Your task to perform on an android device: turn off wifi Image 0: 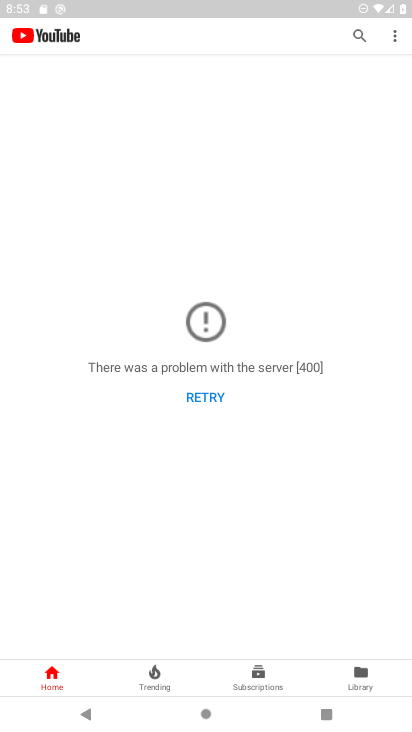
Step 0: press home button
Your task to perform on an android device: turn off wifi Image 1: 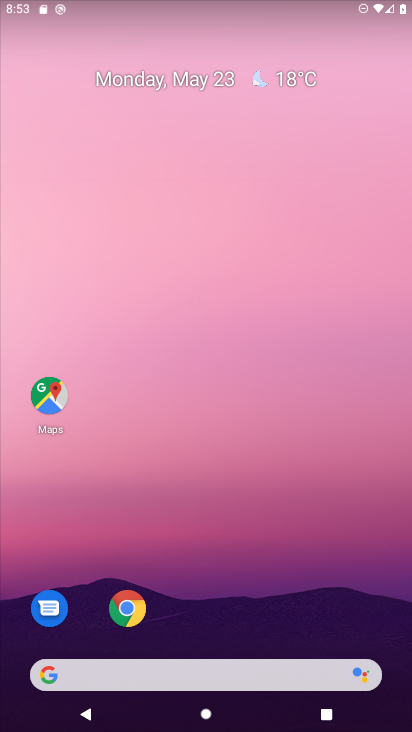
Step 1: drag from (223, 727) to (227, 126)
Your task to perform on an android device: turn off wifi Image 2: 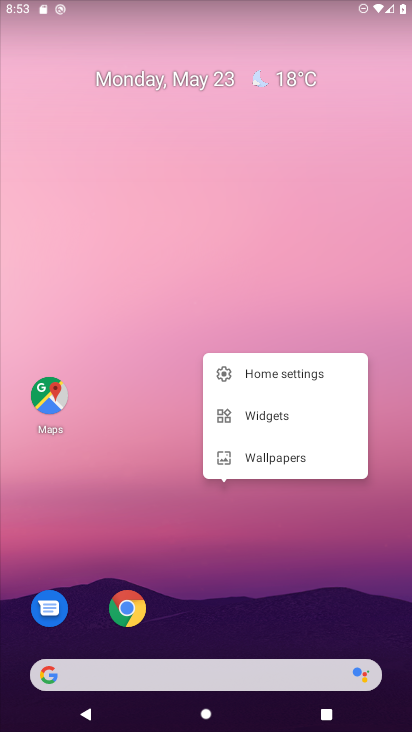
Step 2: click (225, 199)
Your task to perform on an android device: turn off wifi Image 3: 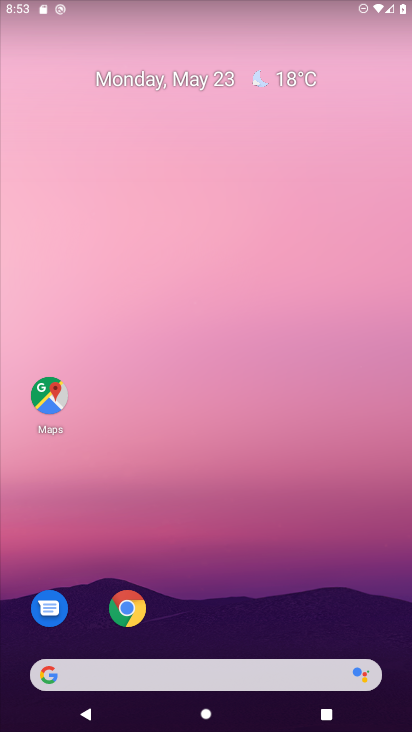
Step 3: drag from (221, 725) to (232, 63)
Your task to perform on an android device: turn off wifi Image 4: 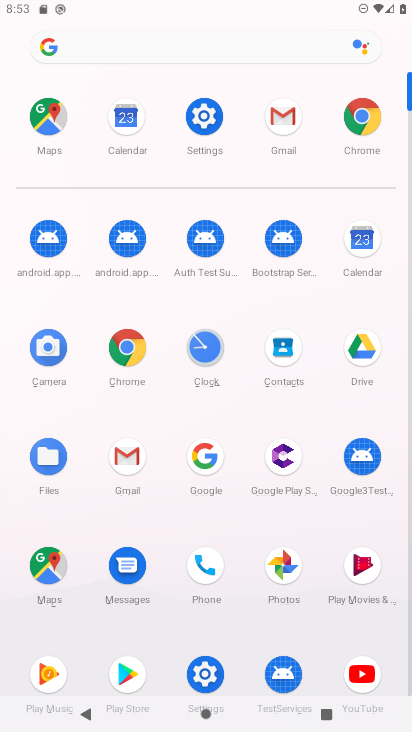
Step 4: click (212, 110)
Your task to perform on an android device: turn off wifi Image 5: 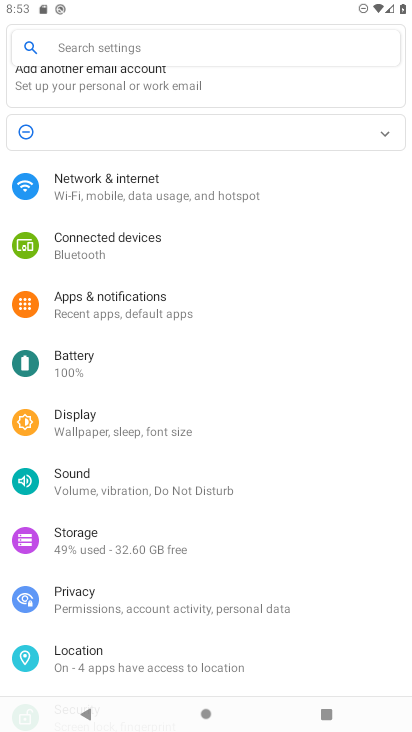
Step 5: click (115, 192)
Your task to perform on an android device: turn off wifi Image 6: 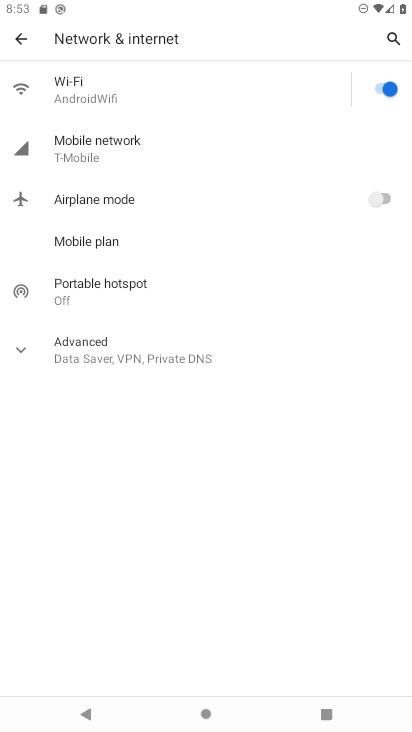
Step 6: click (380, 87)
Your task to perform on an android device: turn off wifi Image 7: 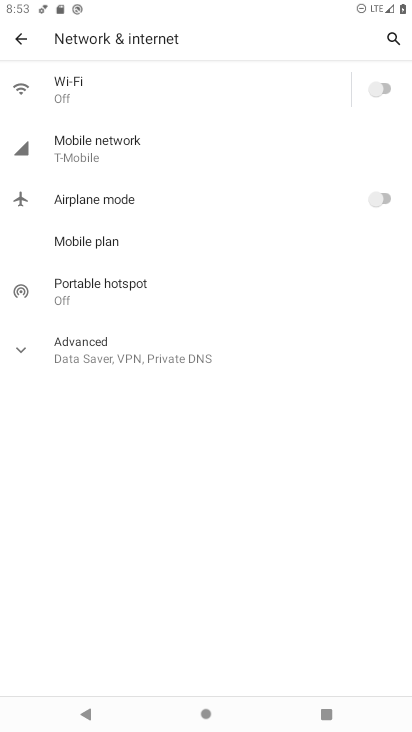
Step 7: task complete